Your task to perform on an android device: What's the weather? Image 0: 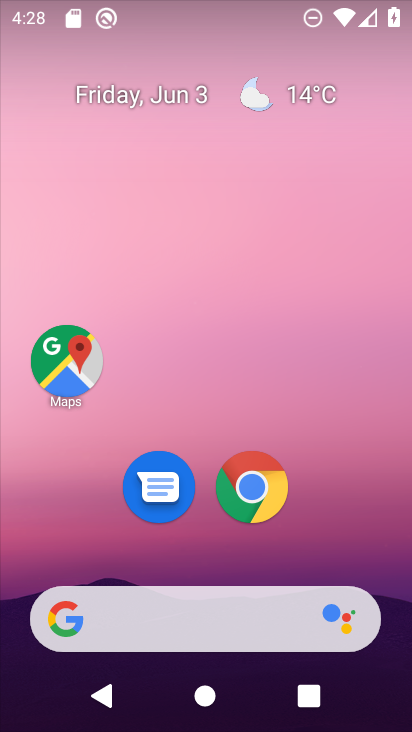
Step 0: click (264, 112)
Your task to perform on an android device: What's the weather? Image 1: 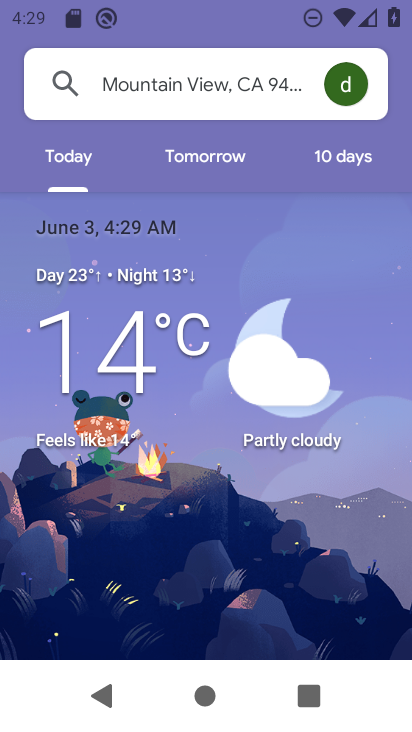
Step 1: task complete